Your task to perform on an android device: Open Yahoo.com Image 0: 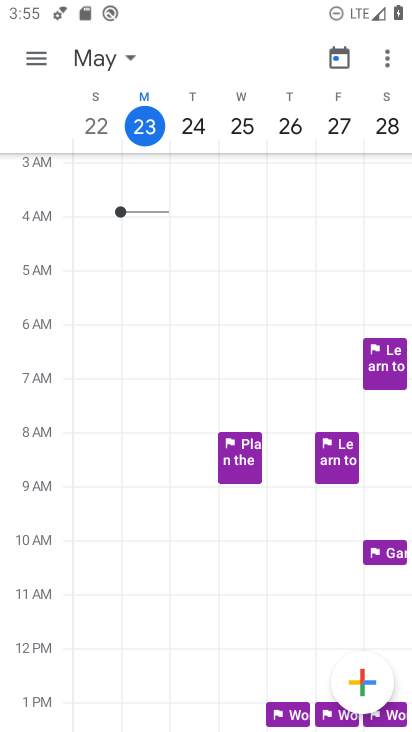
Step 0: press home button
Your task to perform on an android device: Open Yahoo.com Image 1: 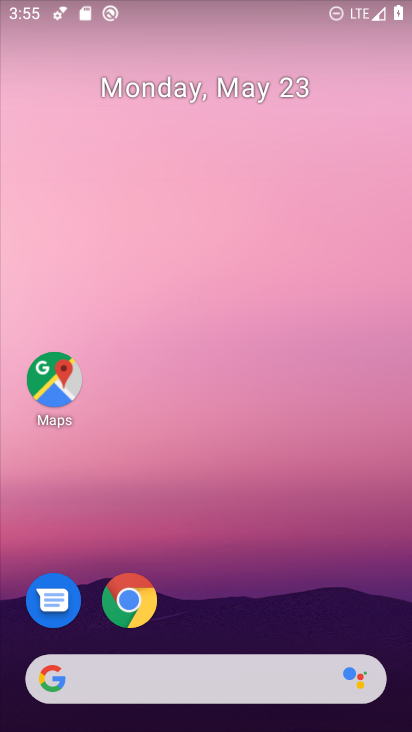
Step 1: click (141, 597)
Your task to perform on an android device: Open Yahoo.com Image 2: 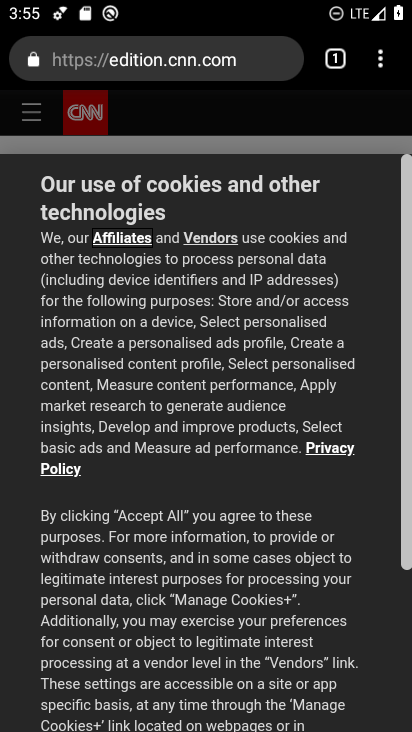
Step 2: click (139, 68)
Your task to perform on an android device: Open Yahoo.com Image 3: 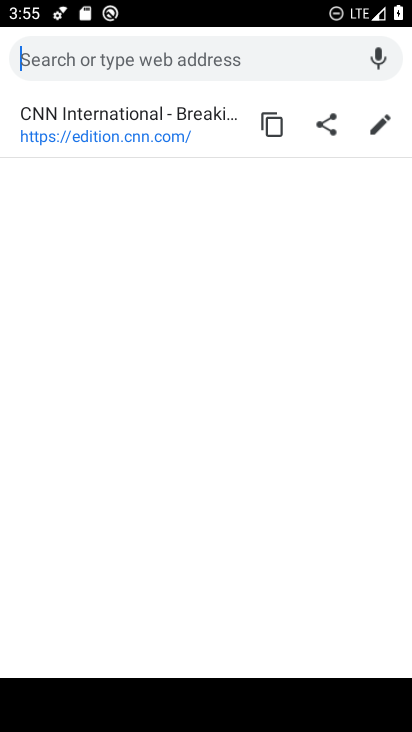
Step 3: type "yahoo.com"
Your task to perform on an android device: Open Yahoo.com Image 4: 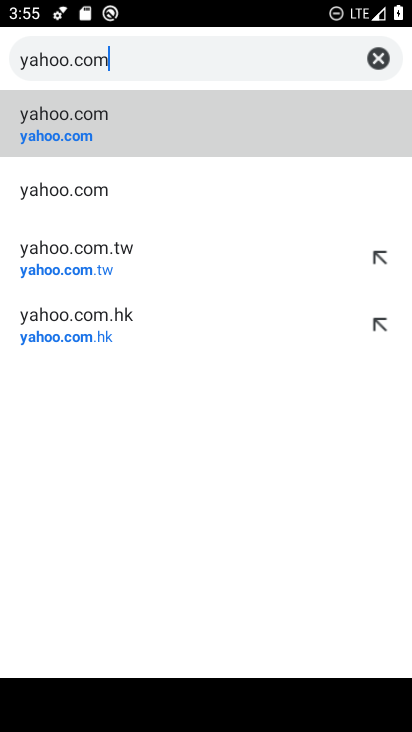
Step 4: click (66, 135)
Your task to perform on an android device: Open Yahoo.com Image 5: 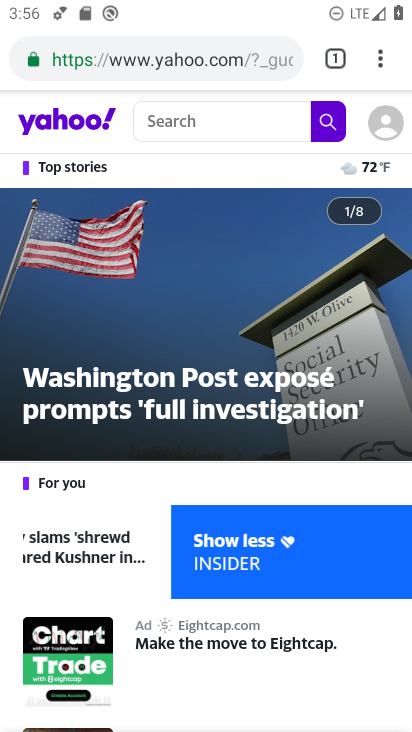
Step 5: task complete